Your task to perform on an android device: Open Google Maps and go to "Timeline" Image 0: 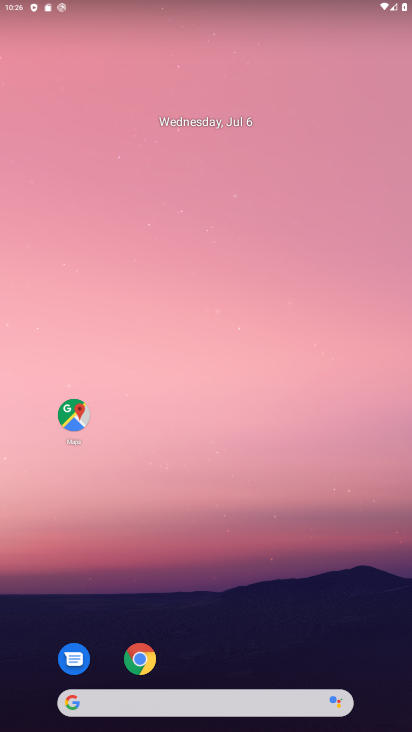
Step 0: click (57, 401)
Your task to perform on an android device: Open Google Maps and go to "Timeline" Image 1: 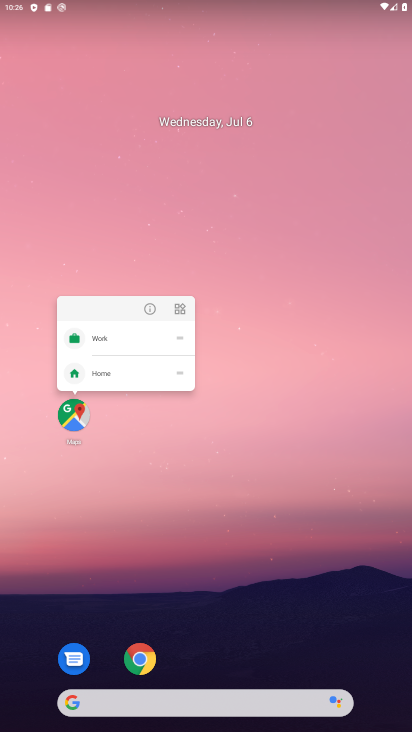
Step 1: click (77, 413)
Your task to perform on an android device: Open Google Maps and go to "Timeline" Image 2: 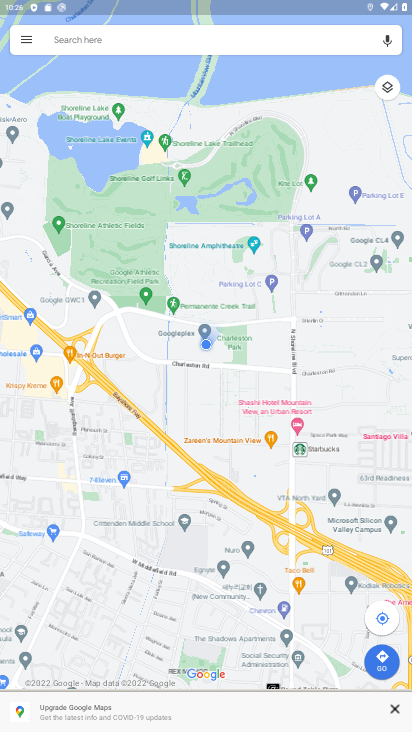
Step 2: click (24, 47)
Your task to perform on an android device: Open Google Maps and go to "Timeline" Image 3: 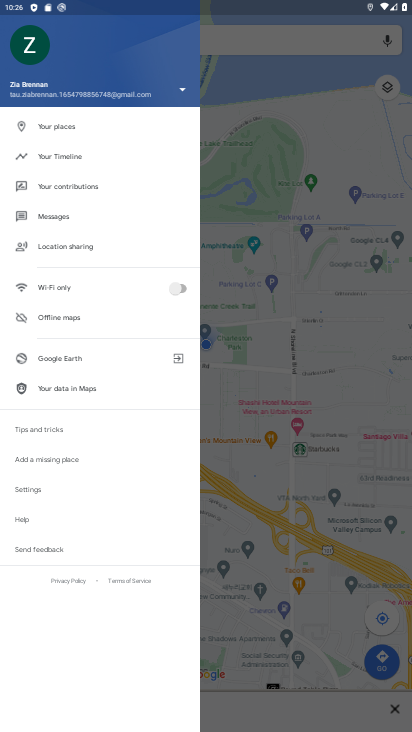
Step 3: click (91, 161)
Your task to perform on an android device: Open Google Maps and go to "Timeline" Image 4: 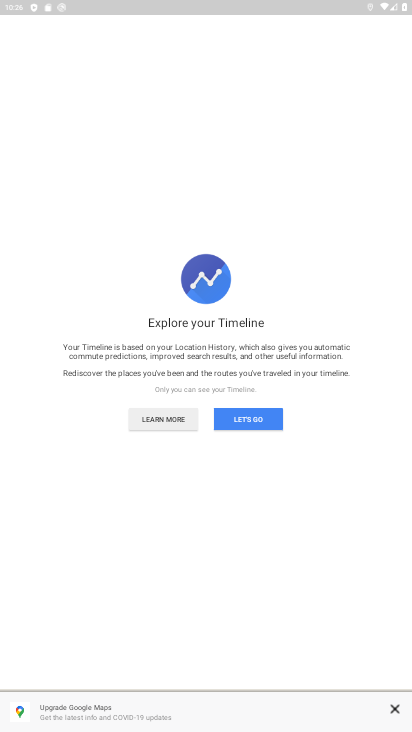
Step 4: click (265, 430)
Your task to perform on an android device: Open Google Maps and go to "Timeline" Image 5: 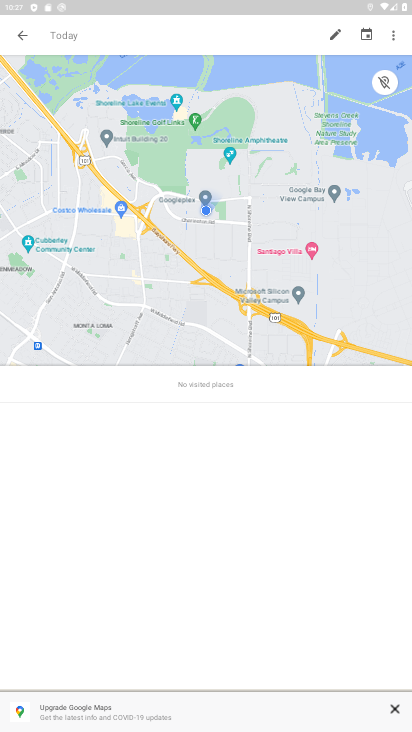
Step 5: task complete